Your task to perform on an android device: Go to display settings Image 0: 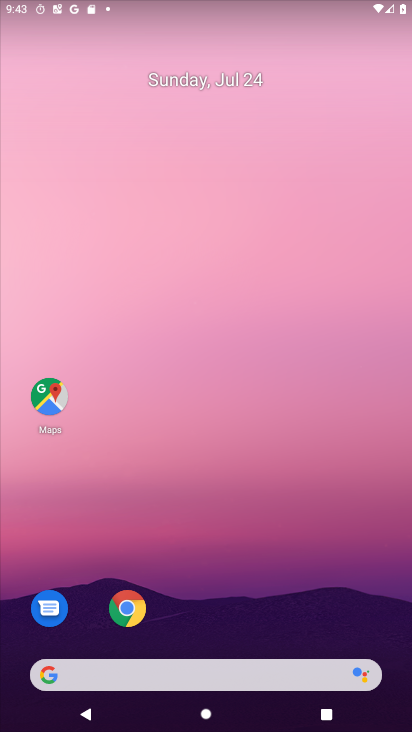
Step 0: drag from (203, 598) to (195, 224)
Your task to perform on an android device: Go to display settings Image 1: 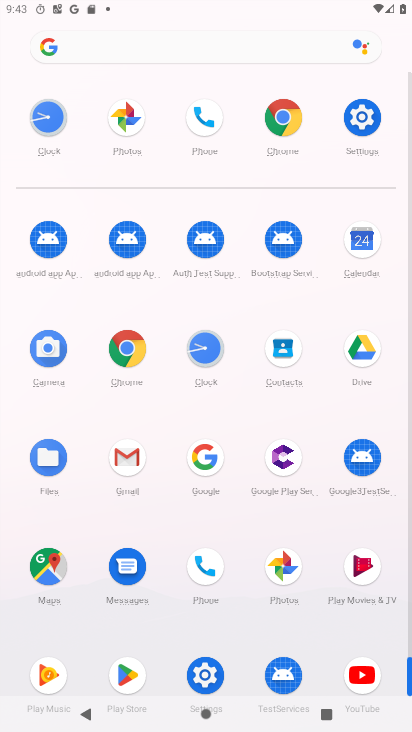
Step 1: click (362, 110)
Your task to perform on an android device: Go to display settings Image 2: 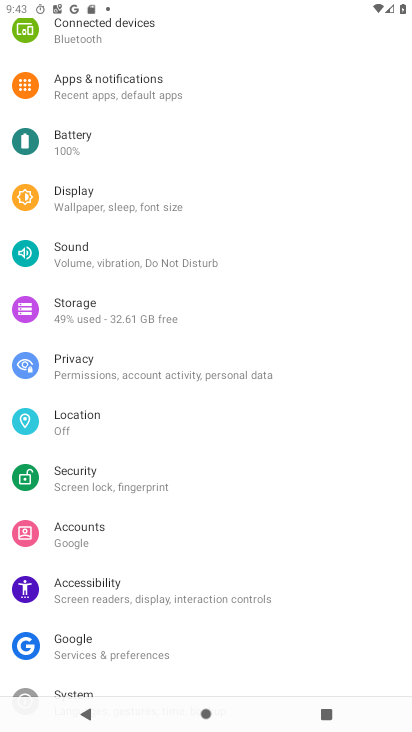
Step 2: click (110, 188)
Your task to perform on an android device: Go to display settings Image 3: 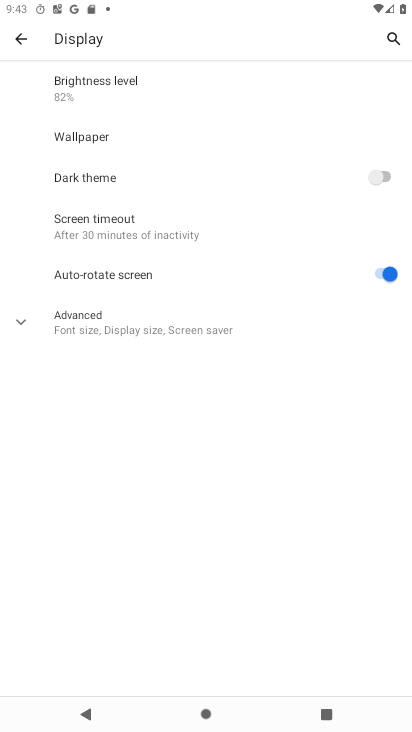
Step 3: task complete